Your task to perform on an android device: open app "Life360: Find Family & Friends" (install if not already installed) Image 0: 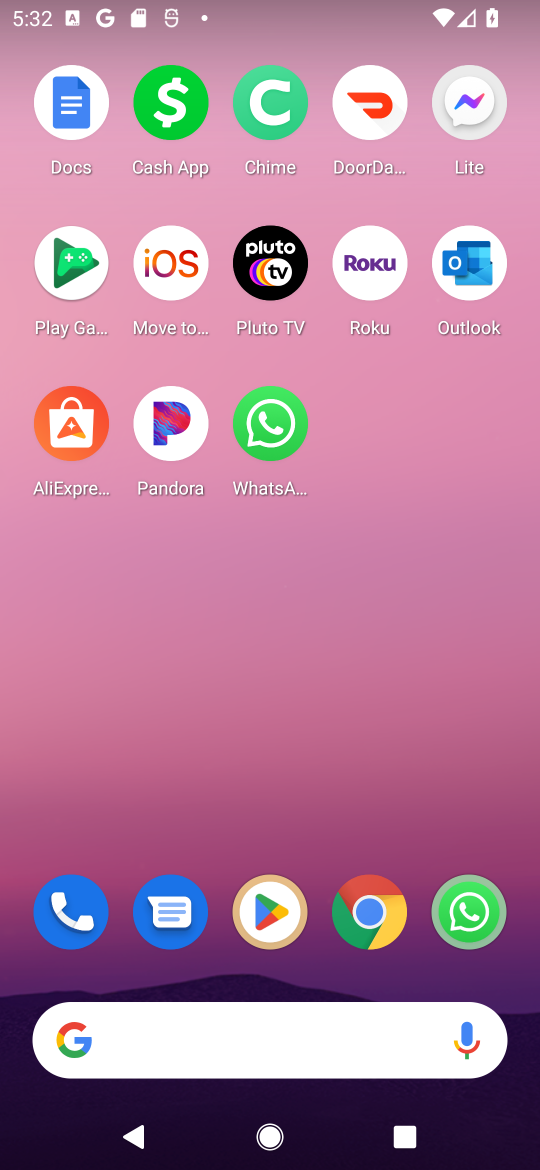
Step 0: click (260, 906)
Your task to perform on an android device: open app "Life360: Find Family & Friends" (install if not already installed) Image 1: 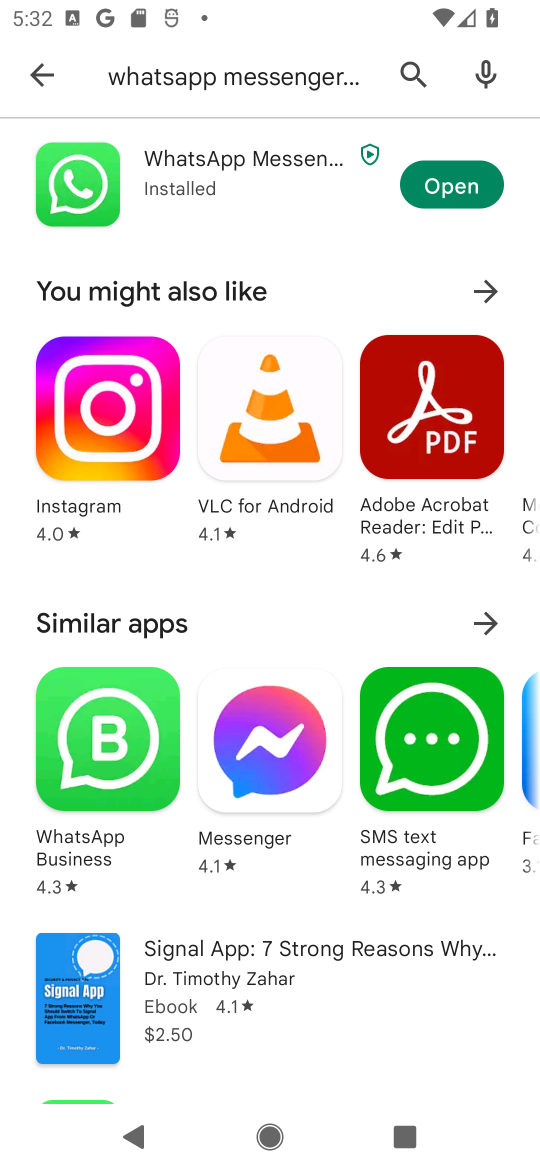
Step 1: click (36, 60)
Your task to perform on an android device: open app "Life360: Find Family & Friends" (install if not already installed) Image 2: 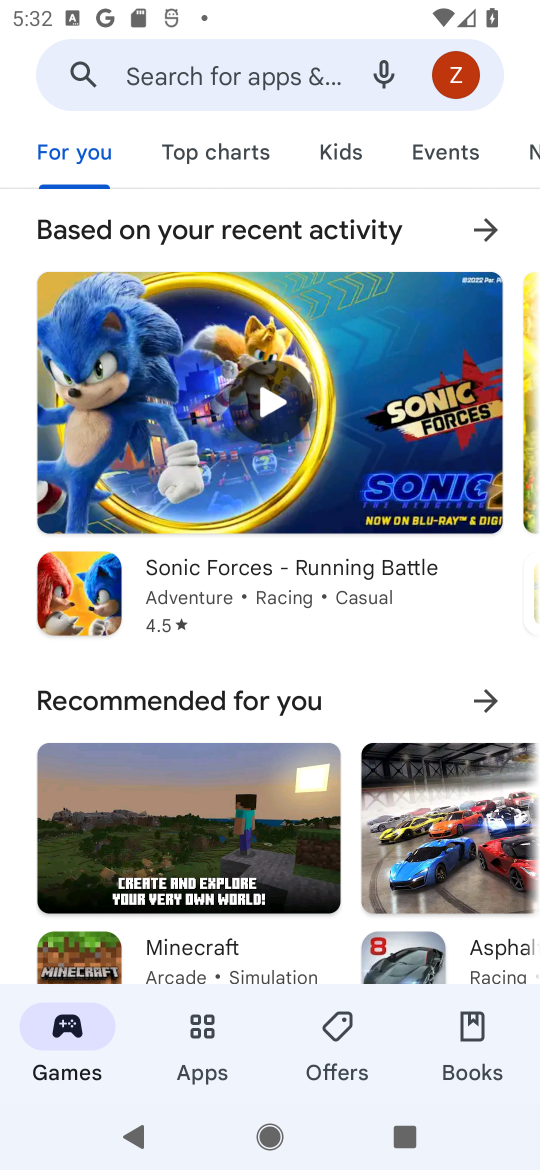
Step 2: click (194, 74)
Your task to perform on an android device: open app "Life360: Find Family & Friends" (install if not already installed) Image 3: 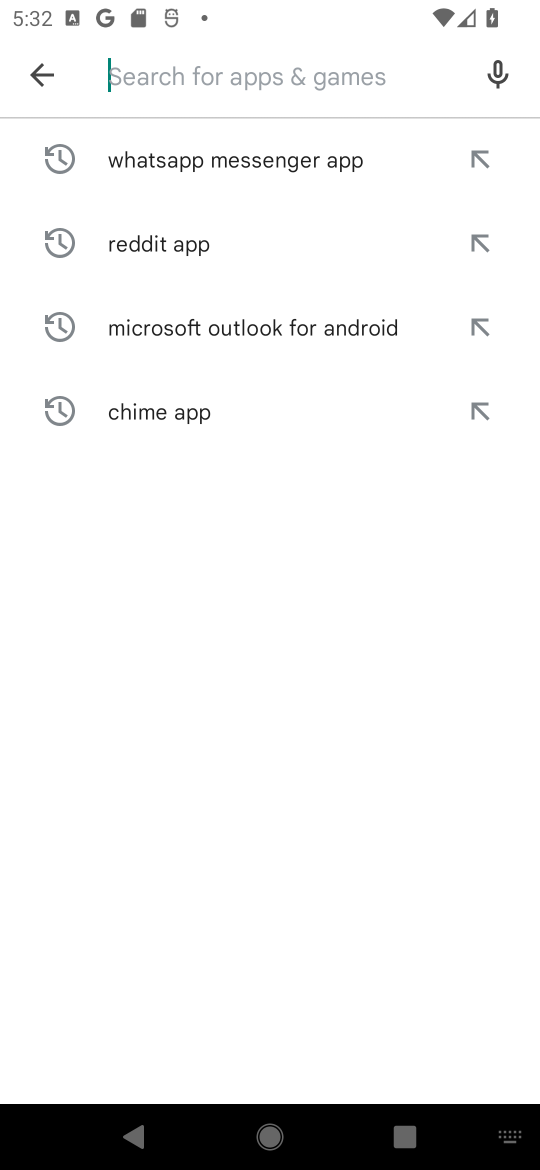
Step 3: type "Life360: Find Family & Friends "
Your task to perform on an android device: open app "Life360: Find Family & Friends" (install if not already installed) Image 4: 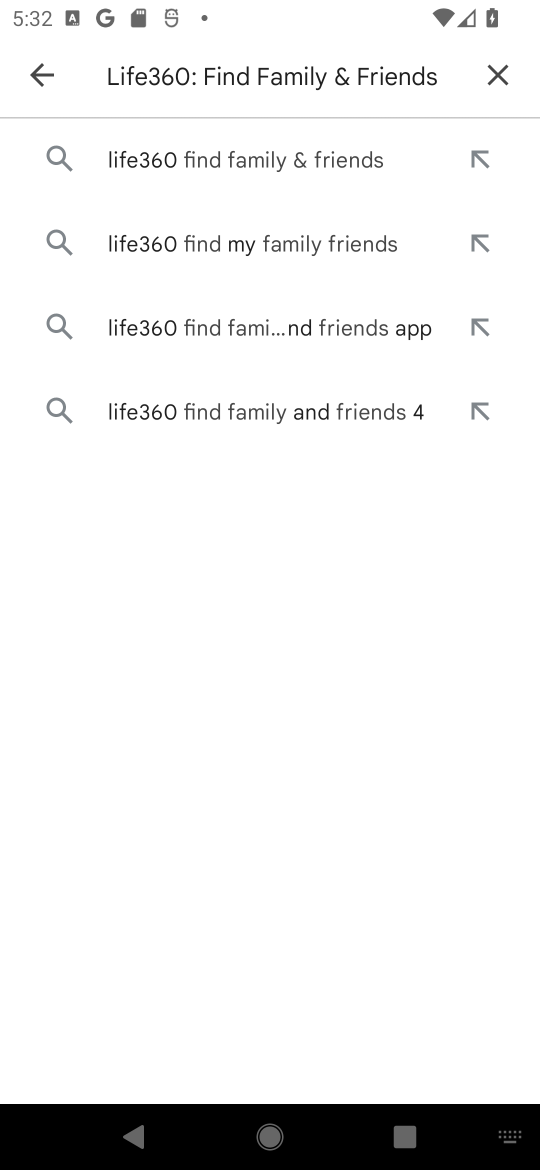
Step 4: click (264, 165)
Your task to perform on an android device: open app "Life360: Find Family & Friends" (install if not already installed) Image 5: 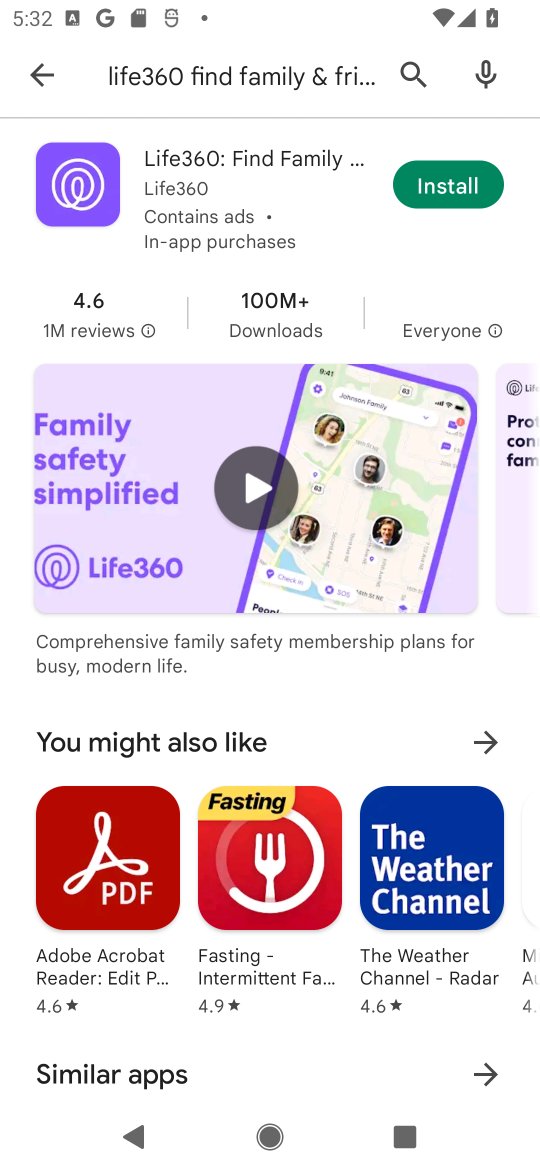
Step 5: click (462, 180)
Your task to perform on an android device: open app "Life360: Find Family & Friends" (install if not already installed) Image 6: 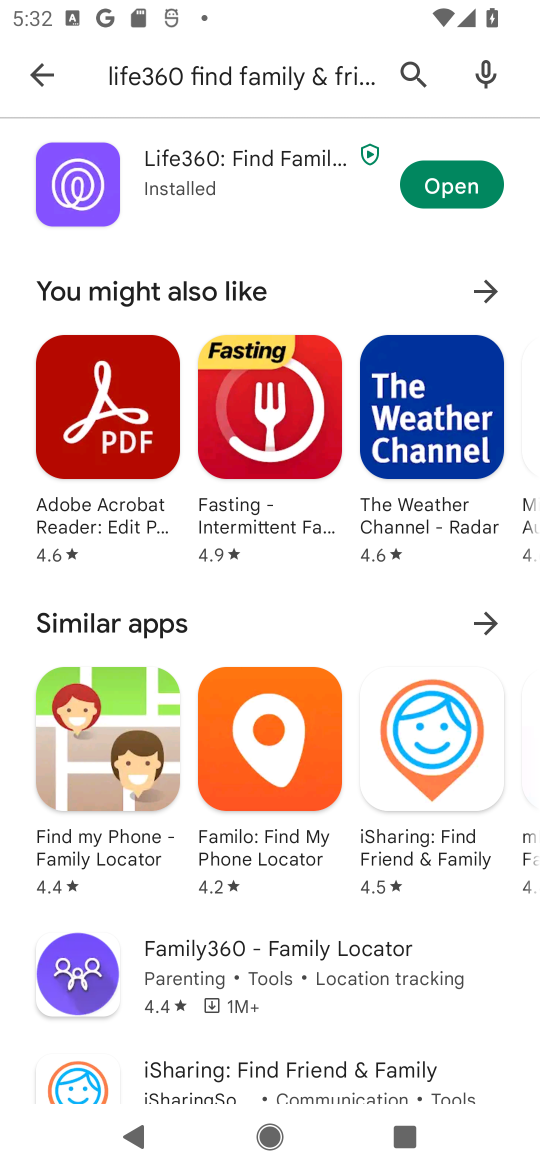
Step 6: click (458, 172)
Your task to perform on an android device: open app "Life360: Find Family & Friends" (install if not already installed) Image 7: 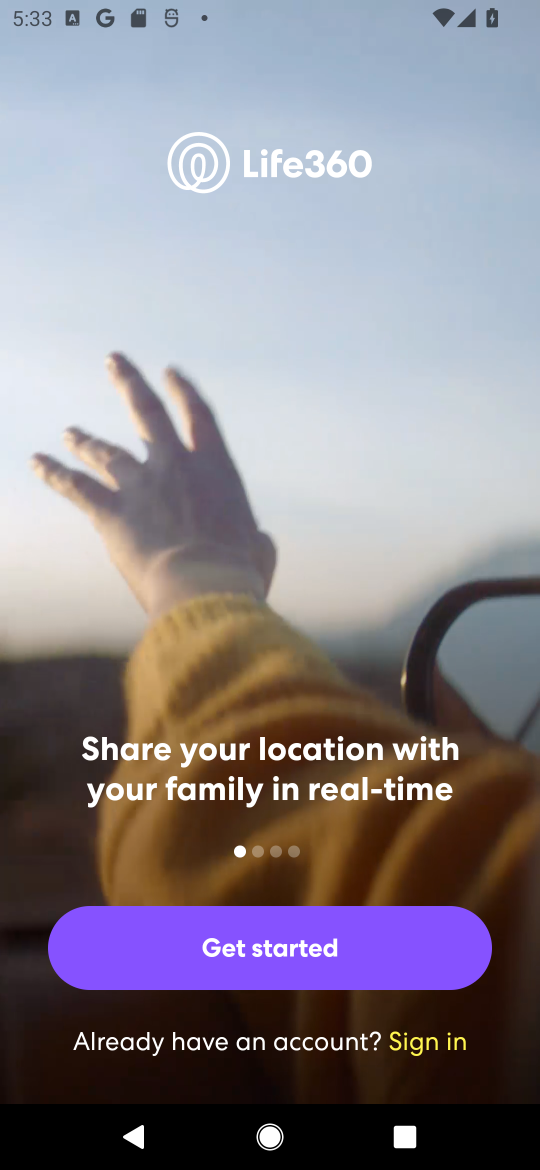
Step 7: task complete